Your task to perform on an android device: add a label to a message in the gmail app Image 0: 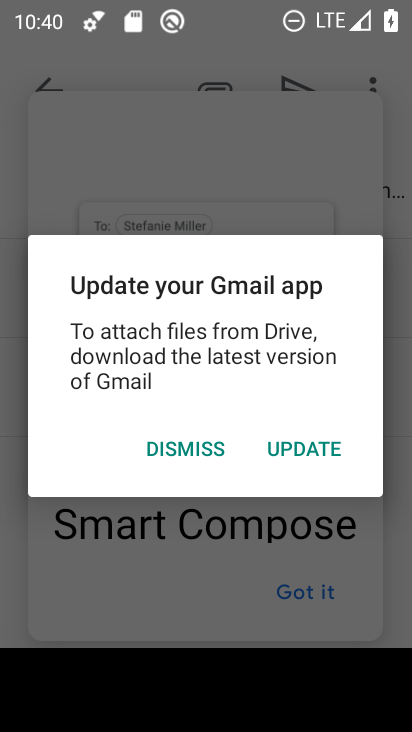
Step 0: press home button
Your task to perform on an android device: add a label to a message in the gmail app Image 1: 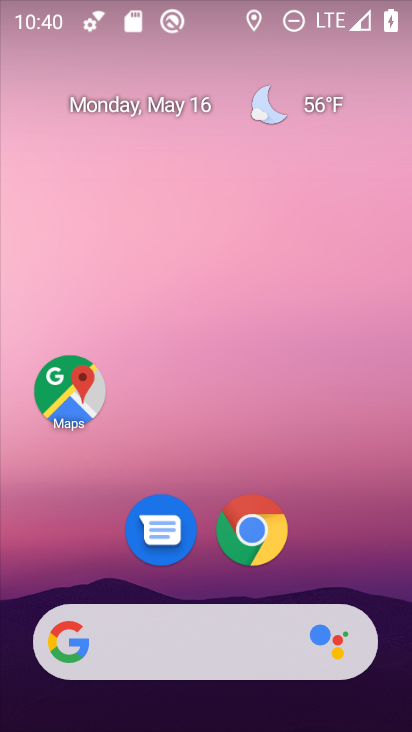
Step 1: drag from (208, 621) to (206, 46)
Your task to perform on an android device: add a label to a message in the gmail app Image 2: 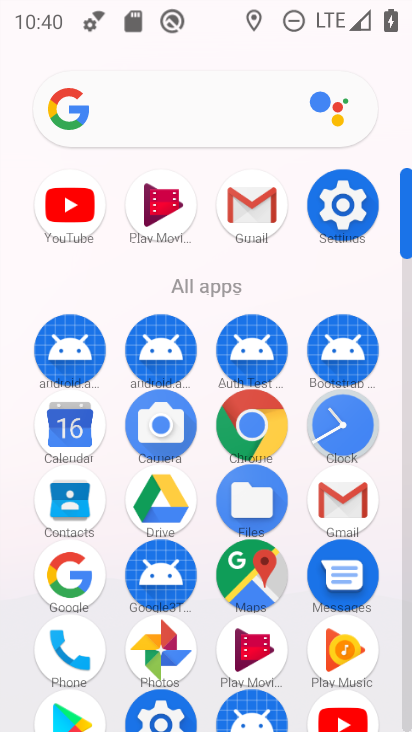
Step 2: click (248, 202)
Your task to perform on an android device: add a label to a message in the gmail app Image 3: 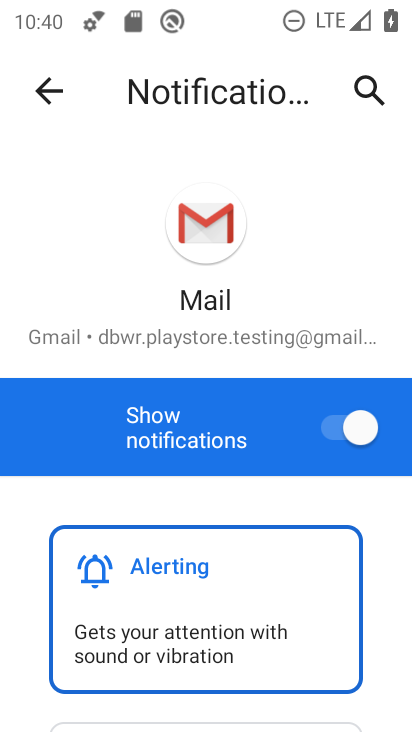
Step 3: click (60, 83)
Your task to perform on an android device: add a label to a message in the gmail app Image 4: 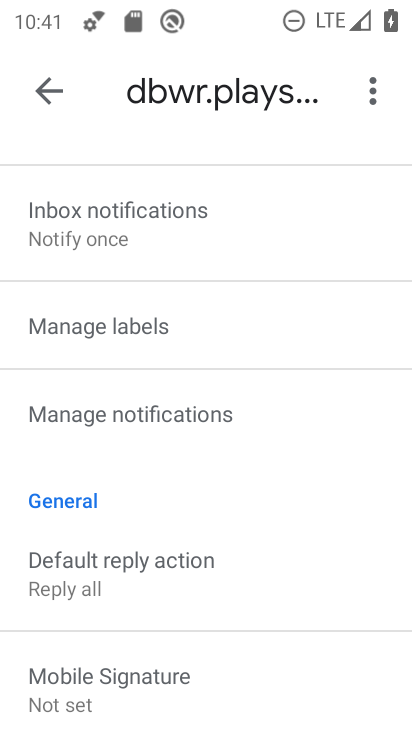
Step 4: click (60, 95)
Your task to perform on an android device: add a label to a message in the gmail app Image 5: 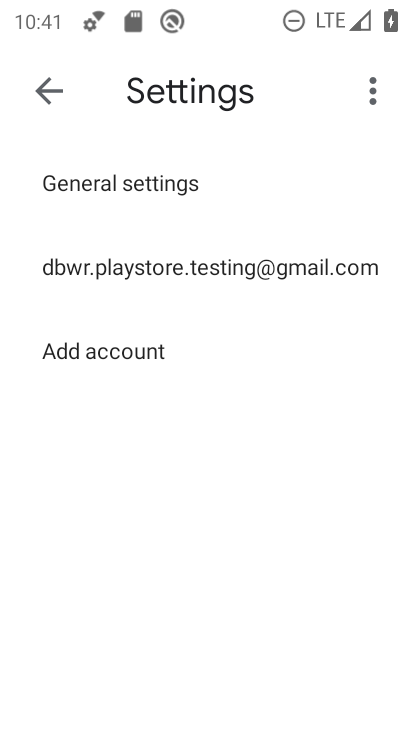
Step 5: click (44, 90)
Your task to perform on an android device: add a label to a message in the gmail app Image 6: 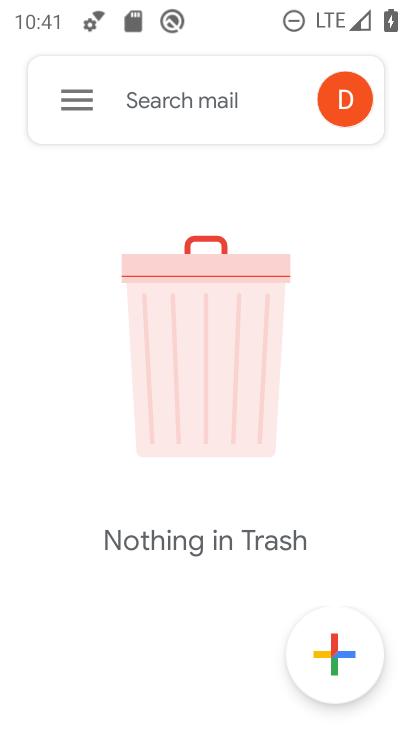
Step 6: click (62, 100)
Your task to perform on an android device: add a label to a message in the gmail app Image 7: 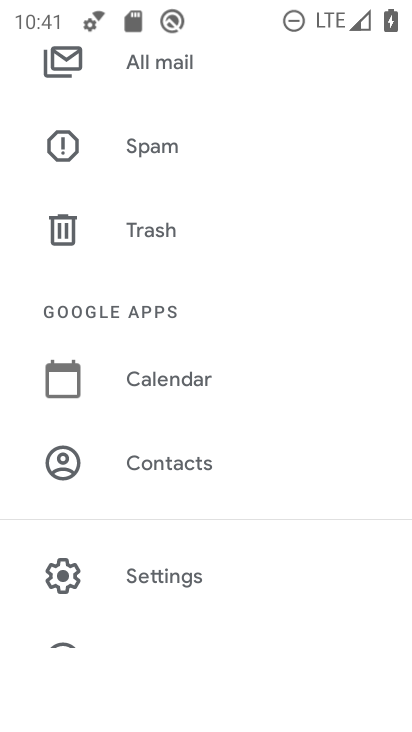
Step 7: drag from (149, 170) to (126, 436)
Your task to perform on an android device: add a label to a message in the gmail app Image 8: 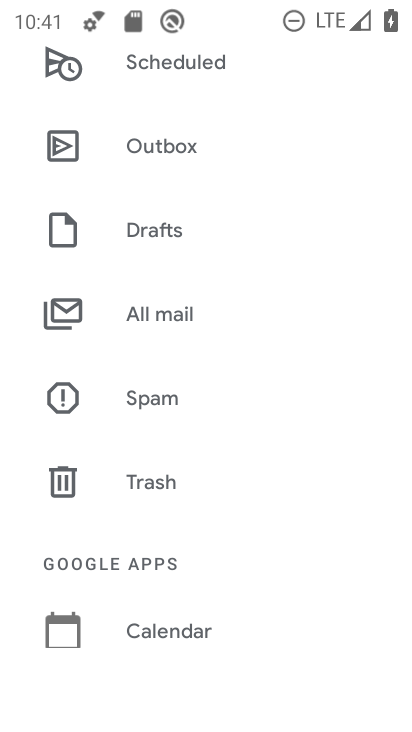
Step 8: click (133, 322)
Your task to perform on an android device: add a label to a message in the gmail app Image 9: 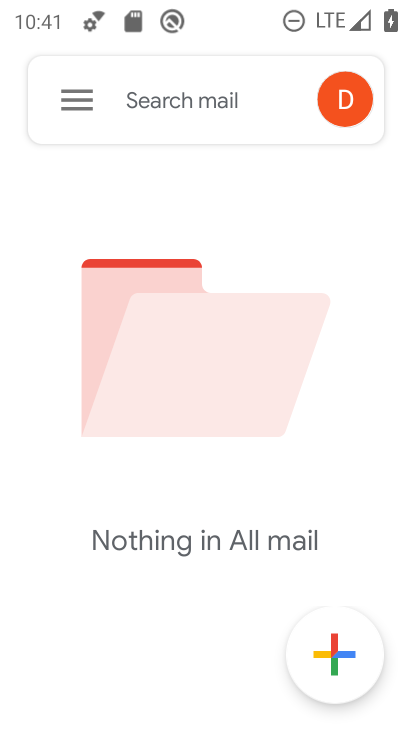
Step 9: task complete